Your task to perform on an android device: change the clock display to digital Image 0: 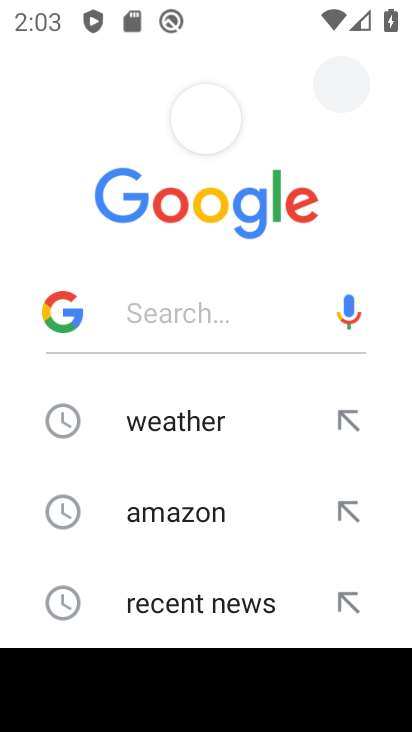
Step 0: press home button
Your task to perform on an android device: change the clock display to digital Image 1: 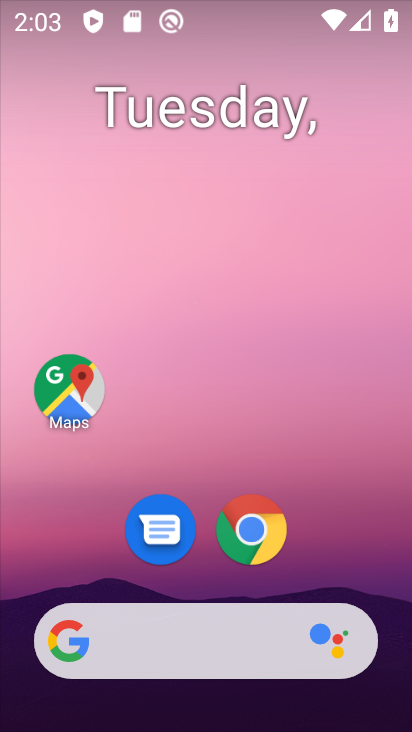
Step 1: drag from (393, 614) to (179, 85)
Your task to perform on an android device: change the clock display to digital Image 2: 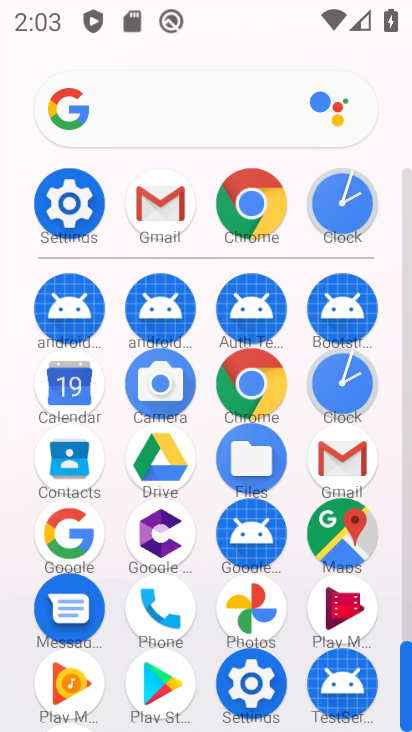
Step 2: click (330, 388)
Your task to perform on an android device: change the clock display to digital Image 3: 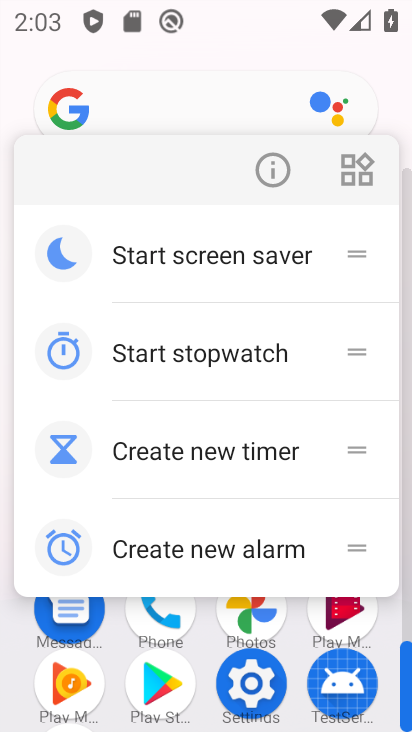
Step 3: press back button
Your task to perform on an android device: change the clock display to digital Image 4: 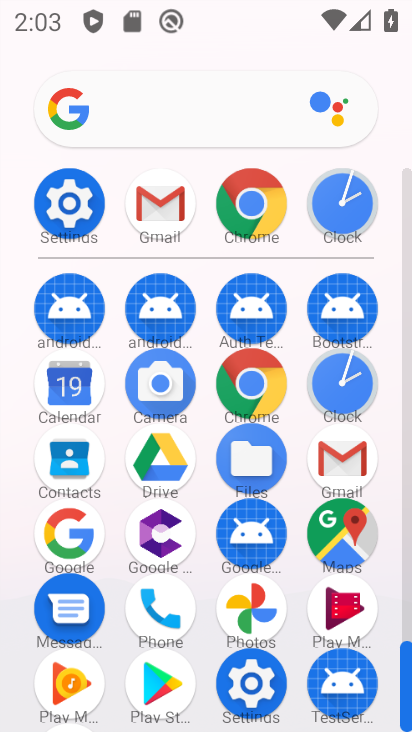
Step 4: click (348, 386)
Your task to perform on an android device: change the clock display to digital Image 5: 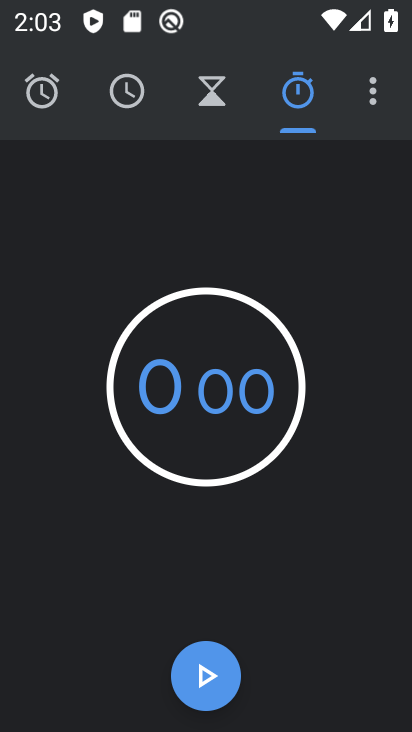
Step 5: click (371, 88)
Your task to perform on an android device: change the clock display to digital Image 6: 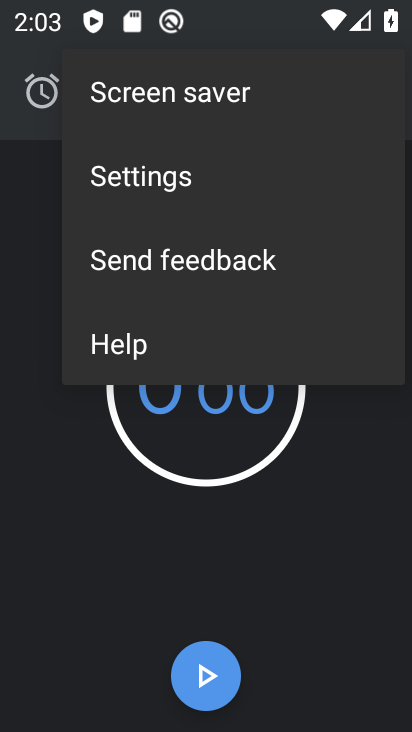
Step 6: click (117, 160)
Your task to perform on an android device: change the clock display to digital Image 7: 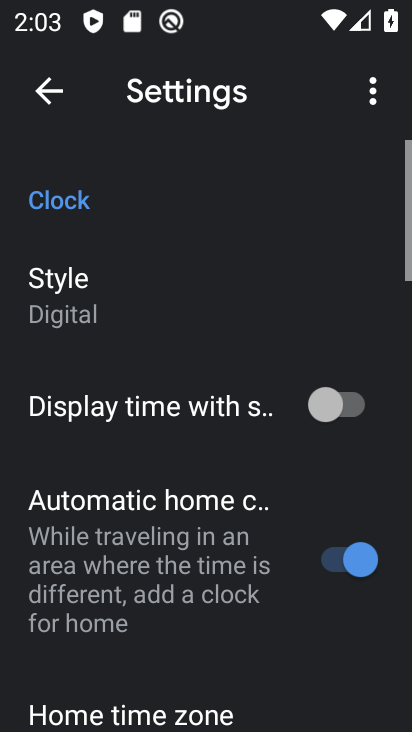
Step 7: click (189, 314)
Your task to perform on an android device: change the clock display to digital Image 8: 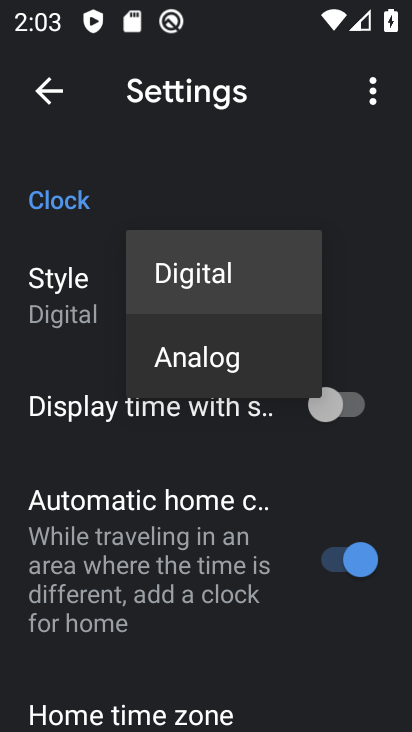
Step 8: click (198, 279)
Your task to perform on an android device: change the clock display to digital Image 9: 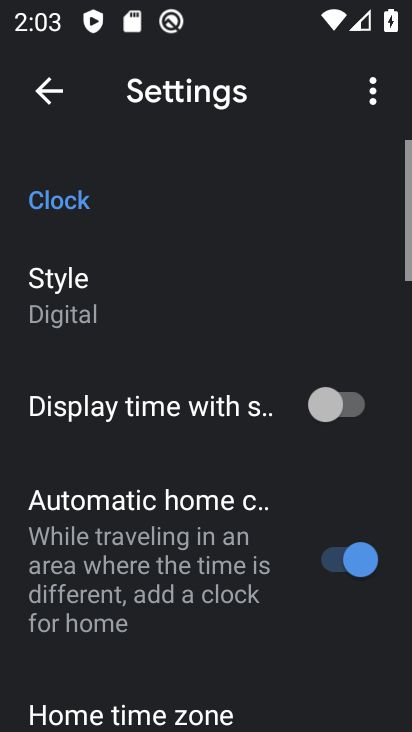
Step 9: task complete